Your task to perform on an android device: Turn on the flashlight Image 0: 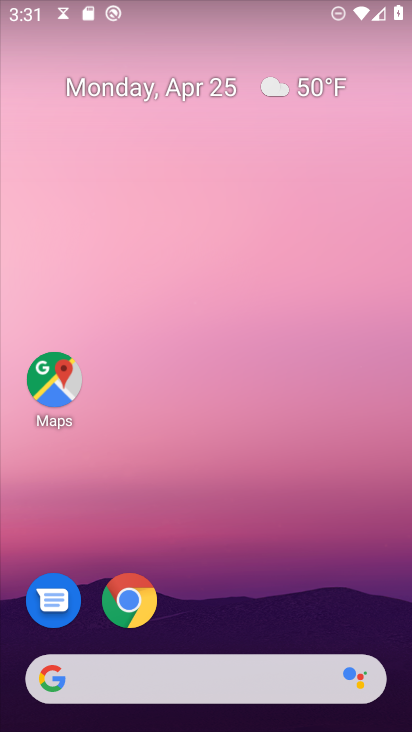
Step 0: drag from (199, 650) to (404, 115)
Your task to perform on an android device: Turn on the flashlight Image 1: 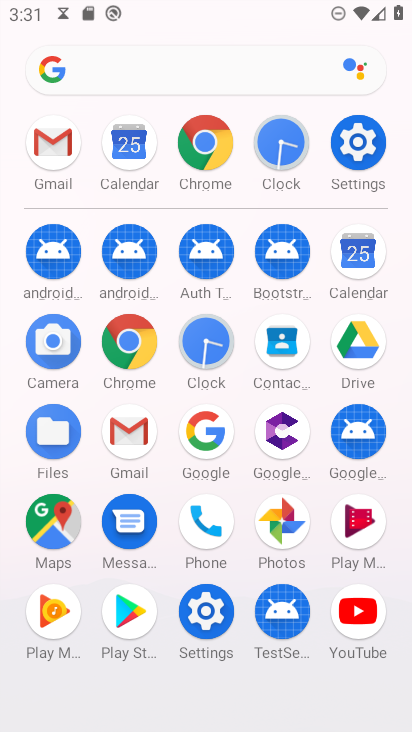
Step 1: click (371, 161)
Your task to perform on an android device: Turn on the flashlight Image 2: 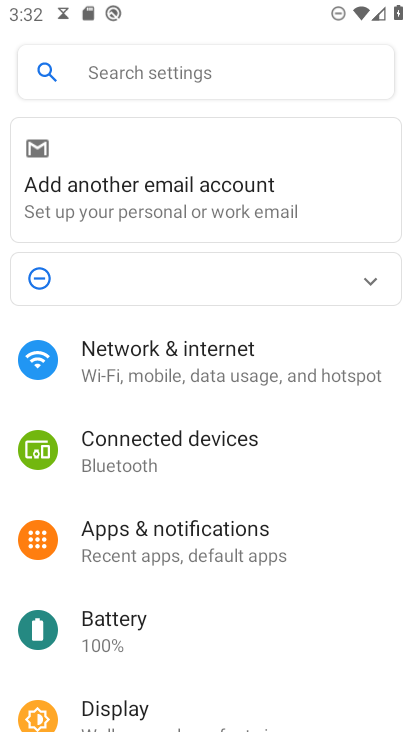
Step 2: task complete